Your task to perform on an android device: move a message to another label in the gmail app Image 0: 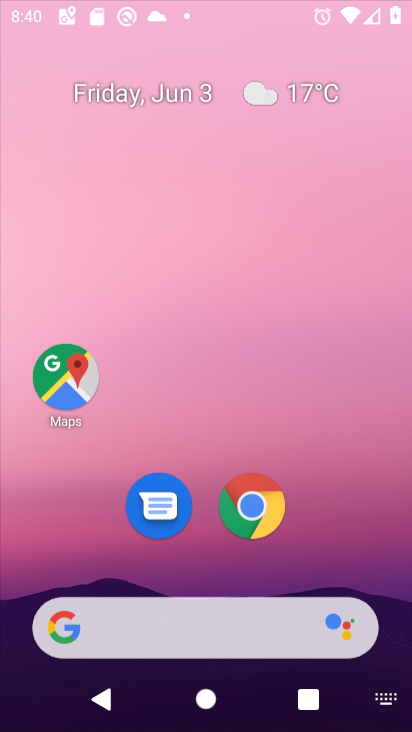
Step 0: press home button
Your task to perform on an android device: move a message to another label in the gmail app Image 1: 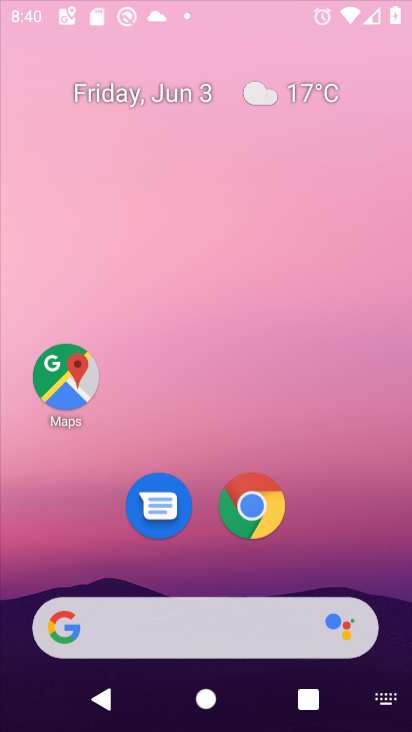
Step 1: click (251, 479)
Your task to perform on an android device: move a message to another label in the gmail app Image 2: 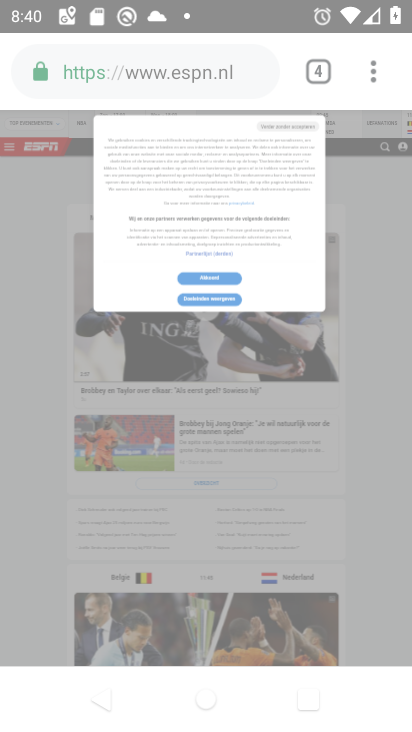
Step 2: press home button
Your task to perform on an android device: move a message to another label in the gmail app Image 3: 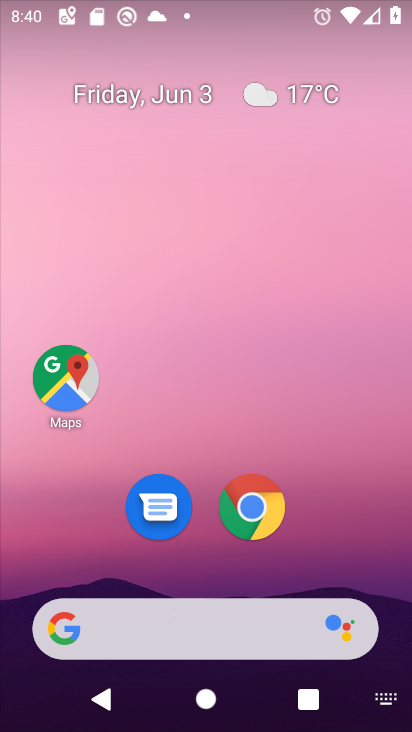
Step 3: drag from (326, 546) to (204, 19)
Your task to perform on an android device: move a message to another label in the gmail app Image 4: 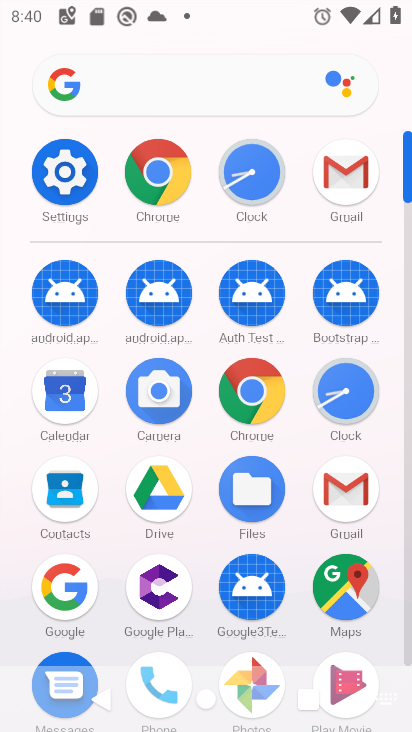
Step 4: click (340, 490)
Your task to perform on an android device: move a message to another label in the gmail app Image 5: 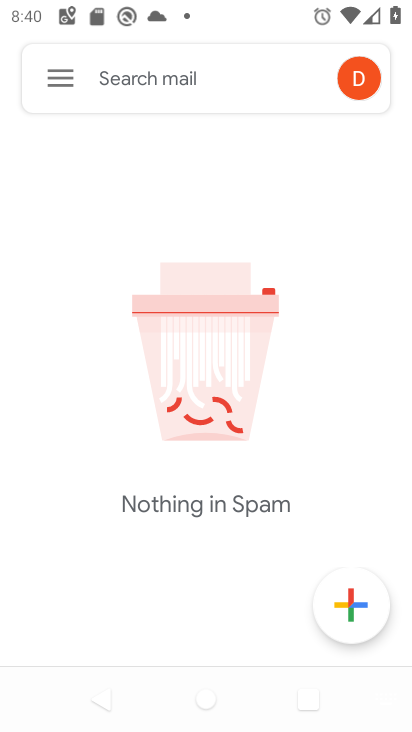
Step 5: click (59, 74)
Your task to perform on an android device: move a message to another label in the gmail app Image 6: 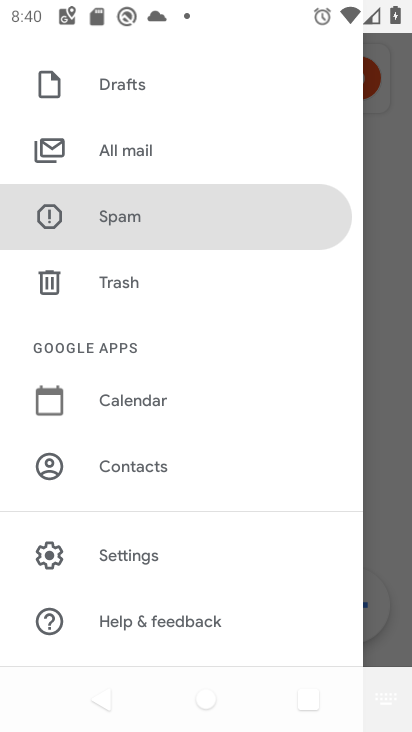
Step 6: click (385, 490)
Your task to perform on an android device: move a message to another label in the gmail app Image 7: 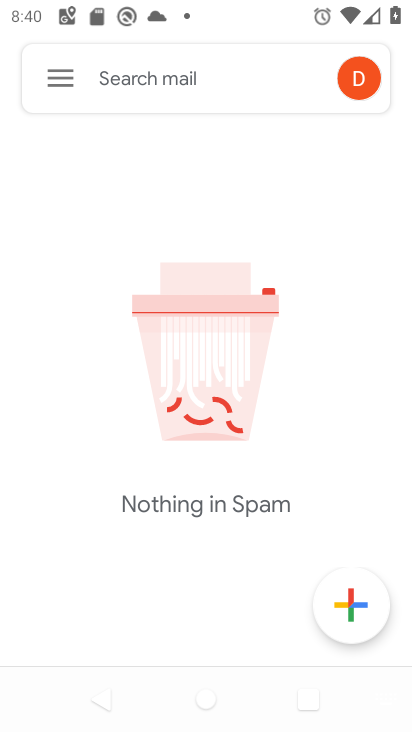
Step 7: task complete